Your task to perform on an android device: See recent photos Image 0: 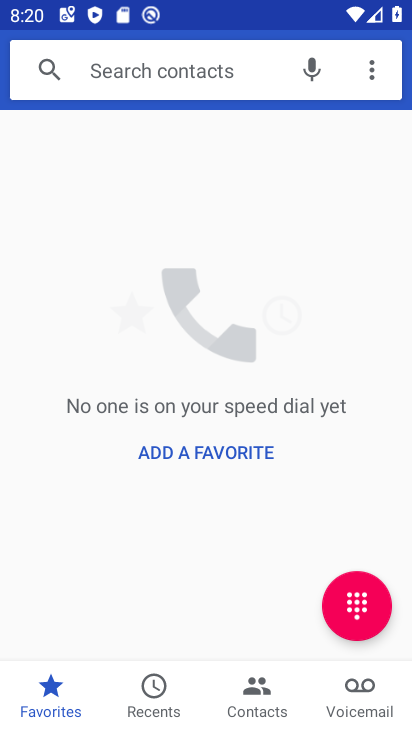
Step 0: press home button
Your task to perform on an android device: See recent photos Image 1: 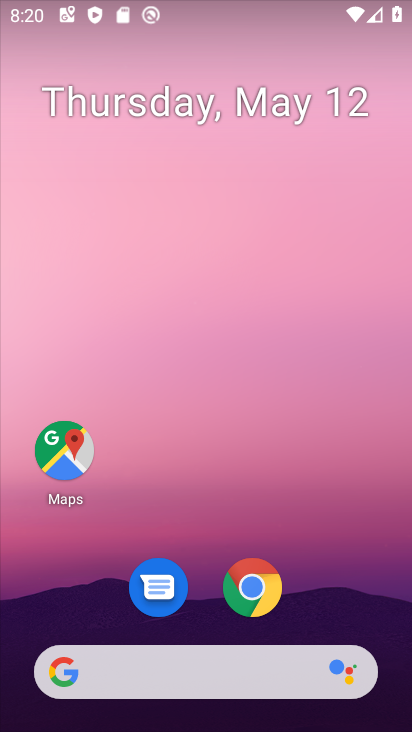
Step 1: drag from (327, 562) to (315, 217)
Your task to perform on an android device: See recent photos Image 2: 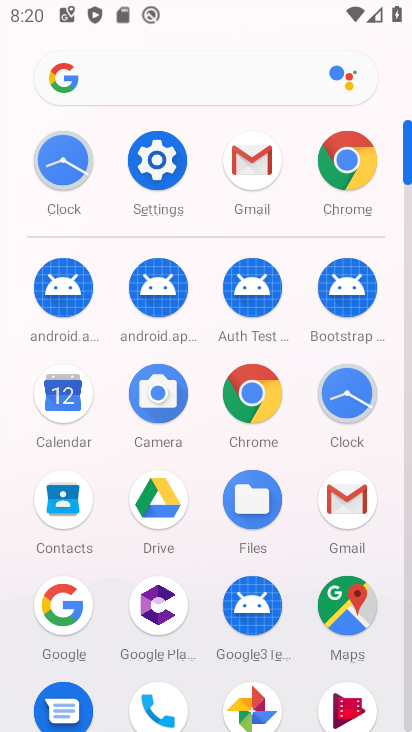
Step 2: drag from (306, 644) to (305, 416)
Your task to perform on an android device: See recent photos Image 3: 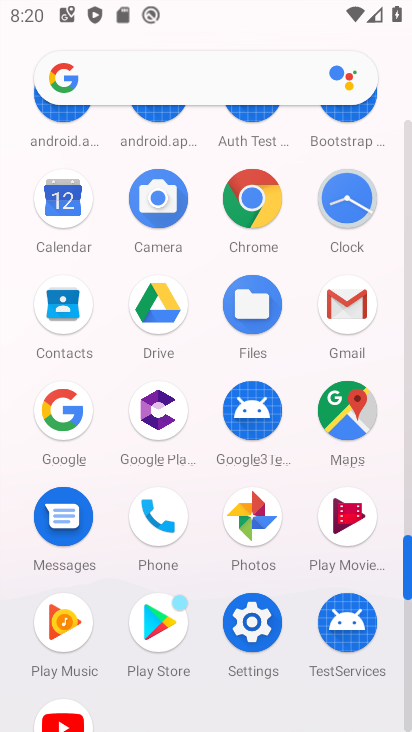
Step 3: click (257, 513)
Your task to perform on an android device: See recent photos Image 4: 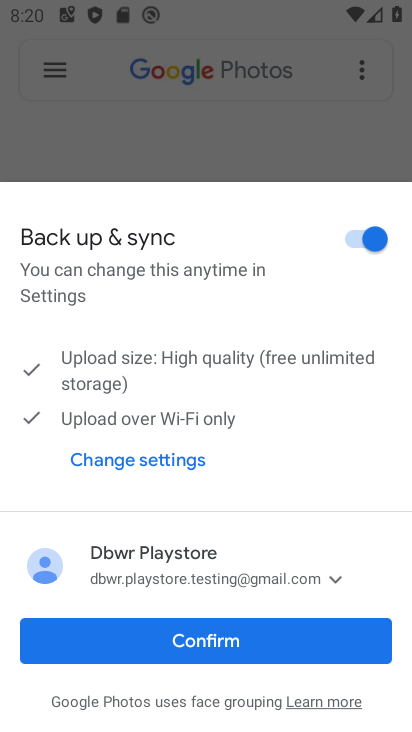
Step 4: click (189, 633)
Your task to perform on an android device: See recent photos Image 5: 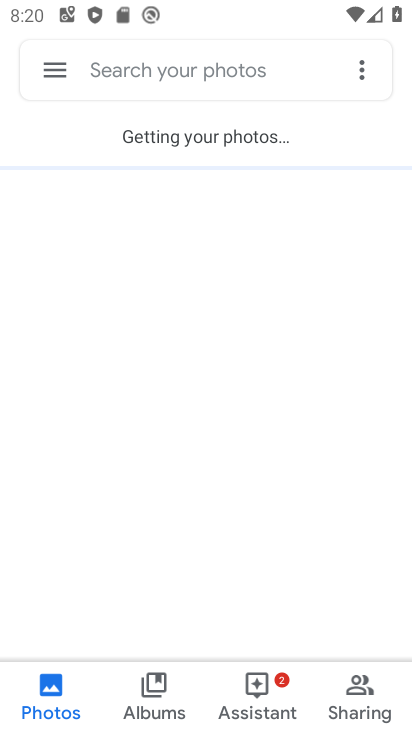
Step 5: click (148, 697)
Your task to perform on an android device: See recent photos Image 6: 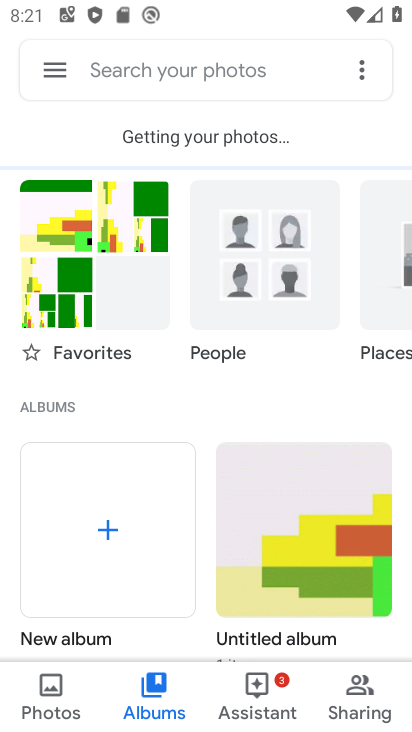
Step 6: task complete